Your task to perform on an android device: Go to notification settings Image 0: 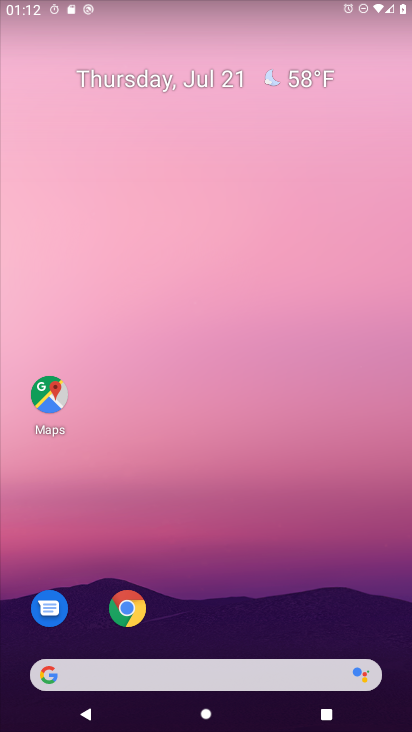
Step 0: press home button
Your task to perform on an android device: Go to notification settings Image 1: 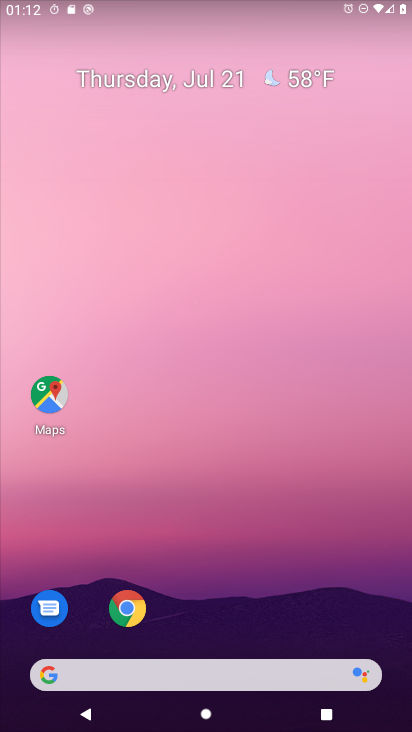
Step 1: drag from (233, 650) to (122, 0)
Your task to perform on an android device: Go to notification settings Image 2: 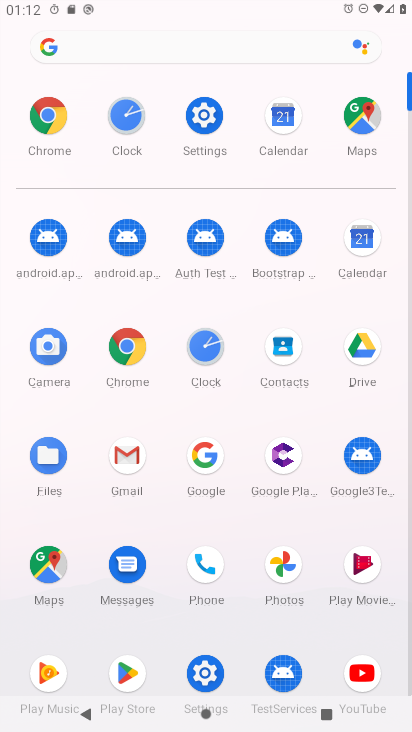
Step 2: click (204, 115)
Your task to perform on an android device: Go to notification settings Image 3: 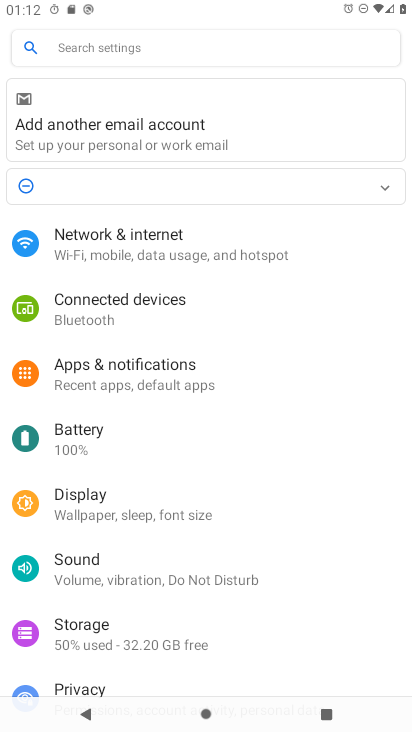
Step 3: click (83, 370)
Your task to perform on an android device: Go to notification settings Image 4: 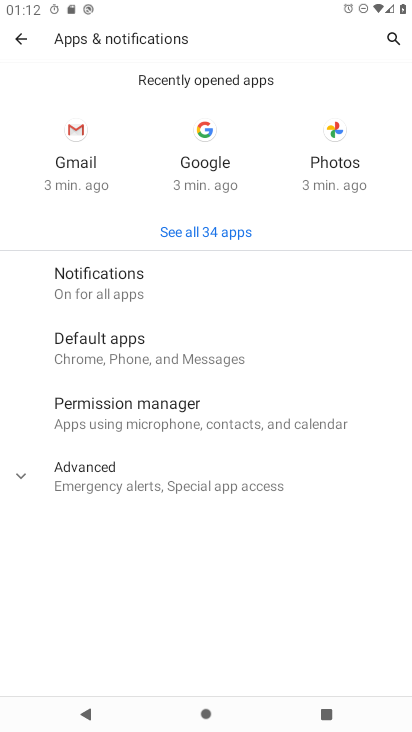
Step 4: task complete